Your task to perform on an android device: read, delete, or share a saved page in the chrome app Image 0: 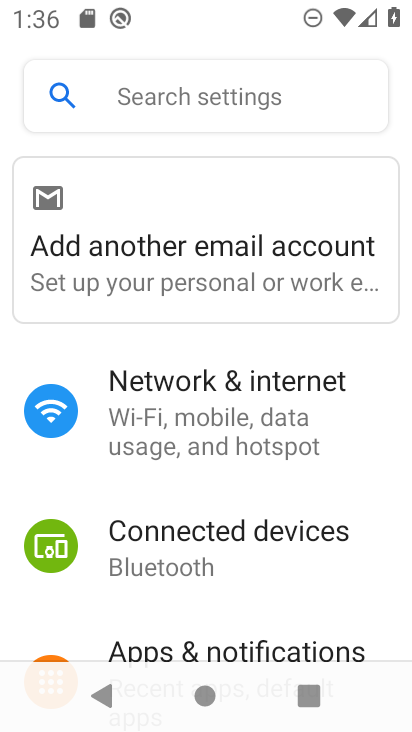
Step 0: press home button
Your task to perform on an android device: read, delete, or share a saved page in the chrome app Image 1: 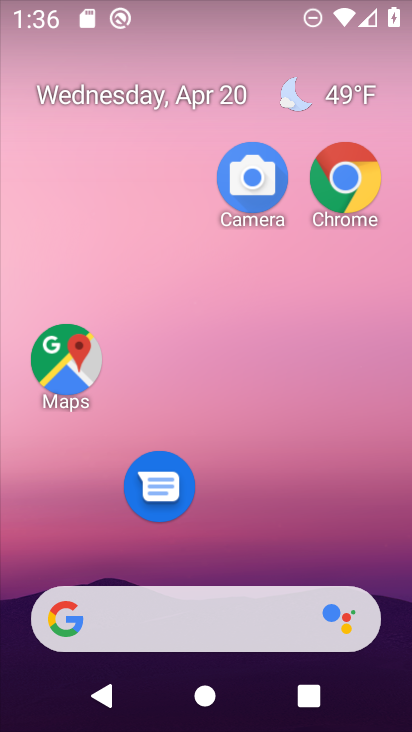
Step 1: drag from (327, 651) to (347, 319)
Your task to perform on an android device: read, delete, or share a saved page in the chrome app Image 2: 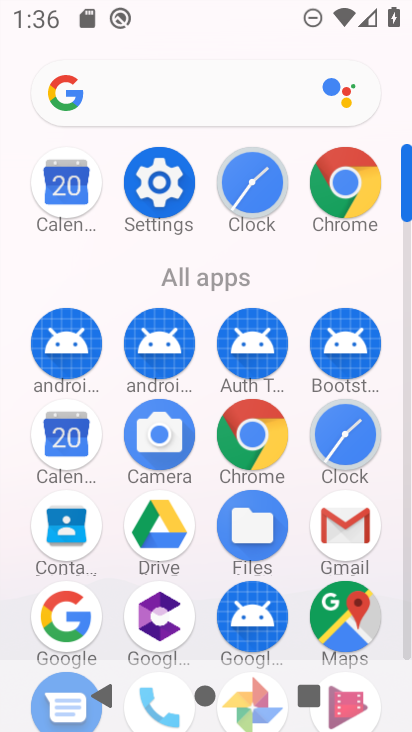
Step 2: click (357, 179)
Your task to perform on an android device: read, delete, or share a saved page in the chrome app Image 3: 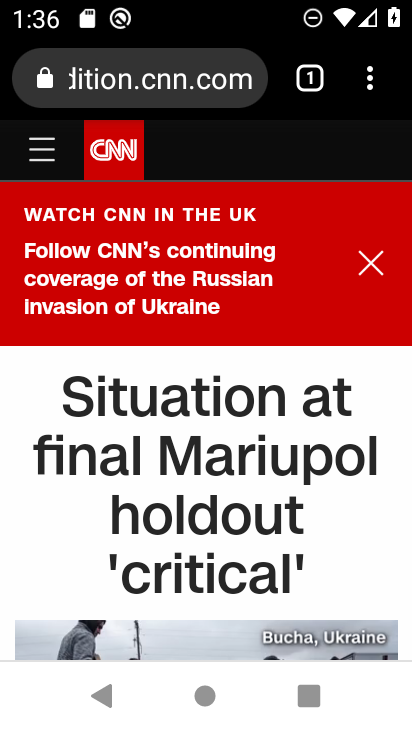
Step 3: click (368, 88)
Your task to perform on an android device: read, delete, or share a saved page in the chrome app Image 4: 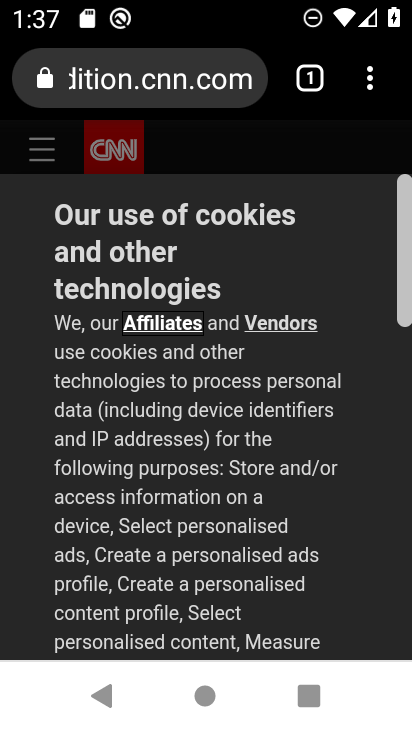
Step 4: click (370, 78)
Your task to perform on an android device: read, delete, or share a saved page in the chrome app Image 5: 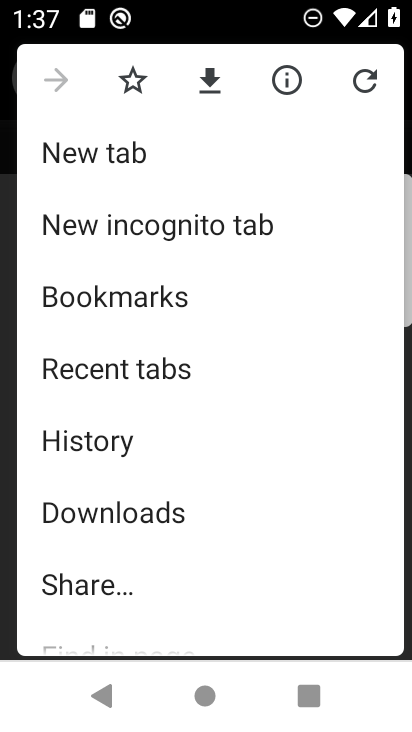
Step 5: click (108, 592)
Your task to perform on an android device: read, delete, or share a saved page in the chrome app Image 6: 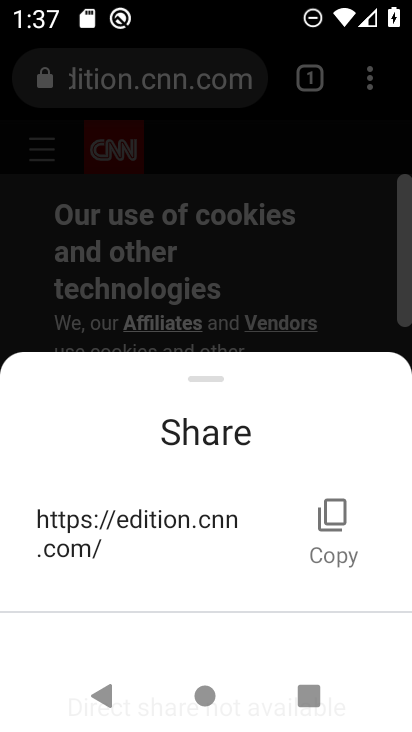
Step 6: task complete